Your task to perform on an android device: Open Google Chrome Image 0: 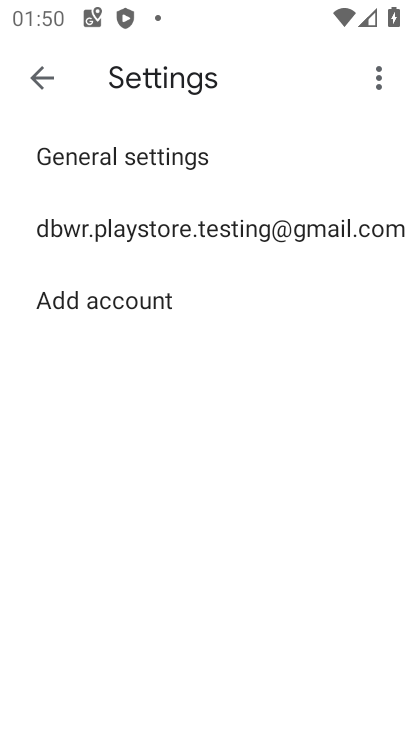
Step 0: press home button
Your task to perform on an android device: Open Google Chrome Image 1: 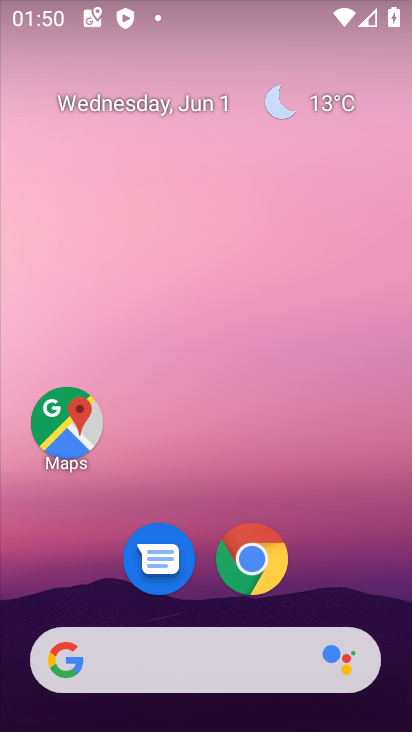
Step 1: click (252, 562)
Your task to perform on an android device: Open Google Chrome Image 2: 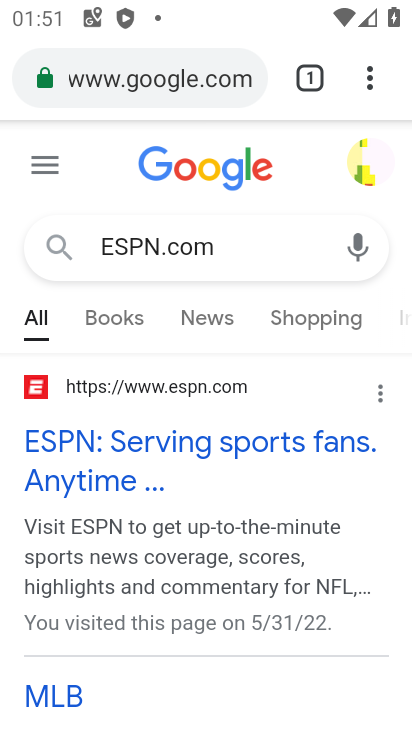
Step 2: click (258, 73)
Your task to perform on an android device: Open Google Chrome Image 3: 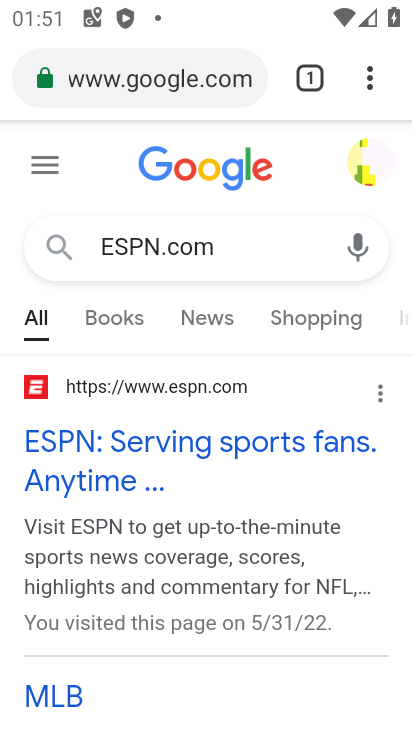
Step 3: click (246, 71)
Your task to perform on an android device: Open Google Chrome Image 4: 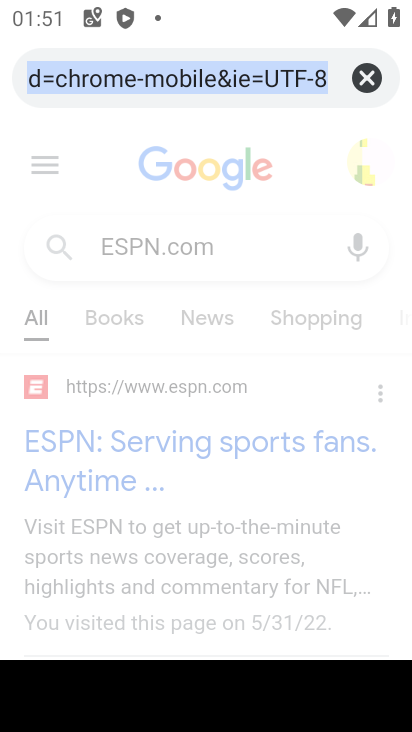
Step 4: click (367, 77)
Your task to perform on an android device: Open Google Chrome Image 5: 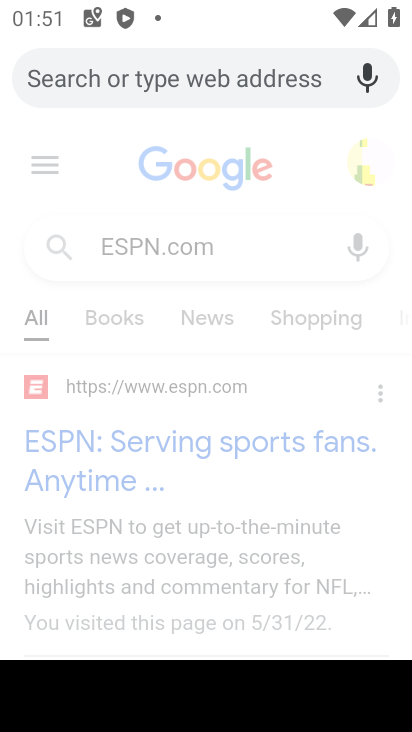
Step 5: task complete